Your task to perform on an android device: Go to privacy settings Image 0: 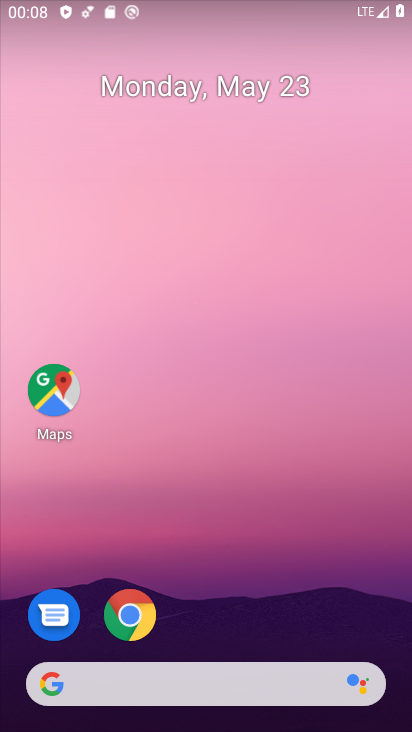
Step 0: drag from (220, 501) to (353, 59)
Your task to perform on an android device: Go to privacy settings Image 1: 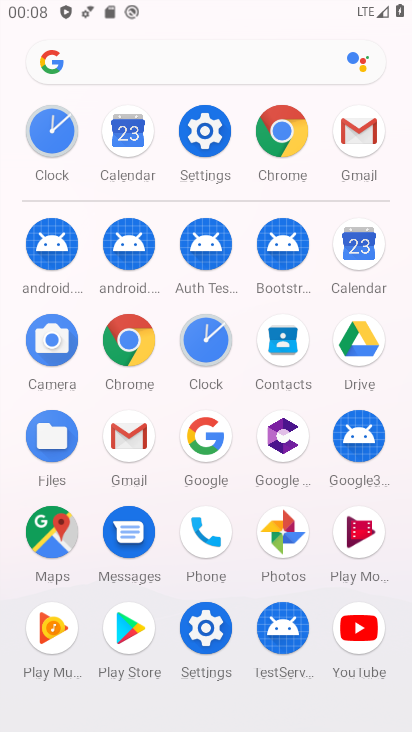
Step 1: click (212, 133)
Your task to perform on an android device: Go to privacy settings Image 2: 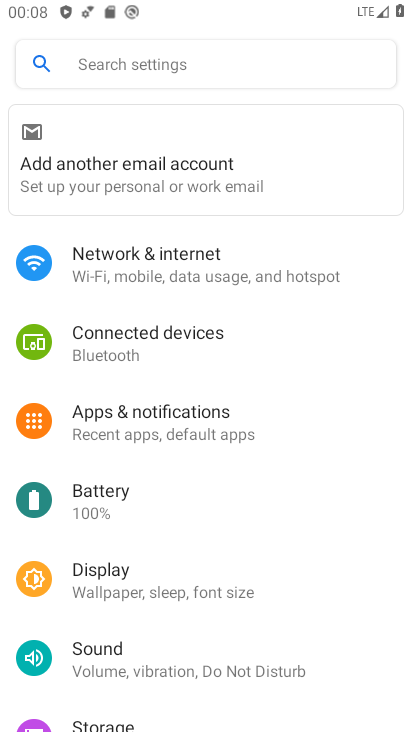
Step 2: drag from (161, 686) to (306, 172)
Your task to perform on an android device: Go to privacy settings Image 3: 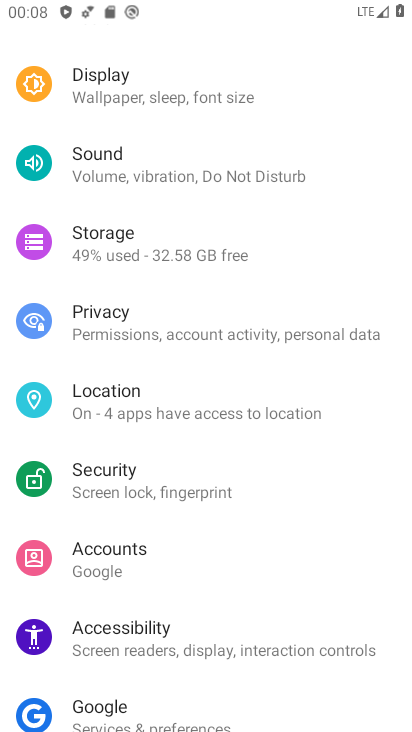
Step 3: click (102, 320)
Your task to perform on an android device: Go to privacy settings Image 4: 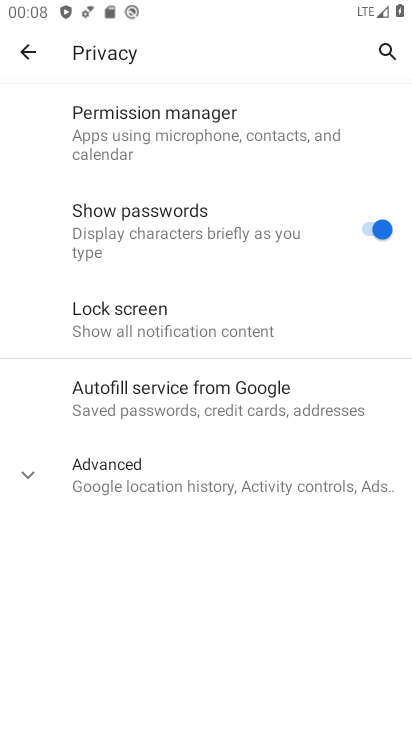
Step 4: task complete